Your task to perform on an android device: toggle sleep mode Image 0: 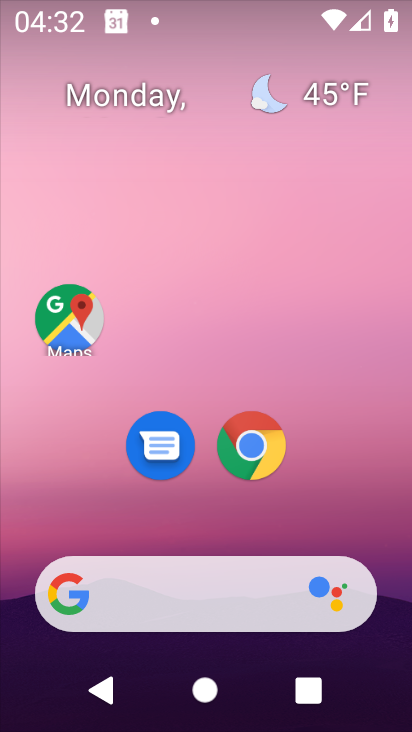
Step 0: drag from (324, 442) to (296, 17)
Your task to perform on an android device: toggle sleep mode Image 1: 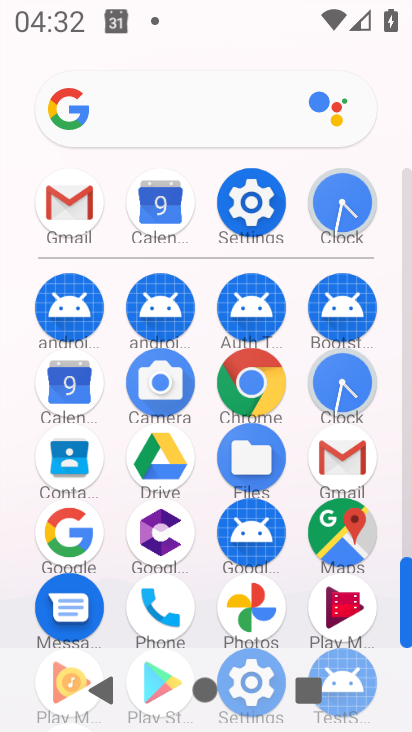
Step 1: click (267, 207)
Your task to perform on an android device: toggle sleep mode Image 2: 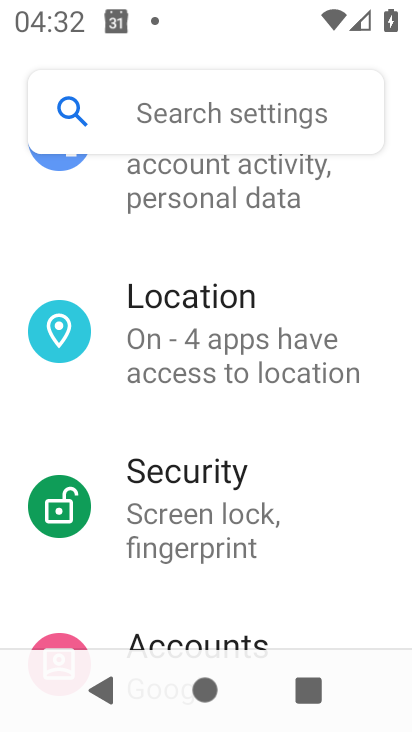
Step 2: drag from (272, 254) to (307, 593)
Your task to perform on an android device: toggle sleep mode Image 3: 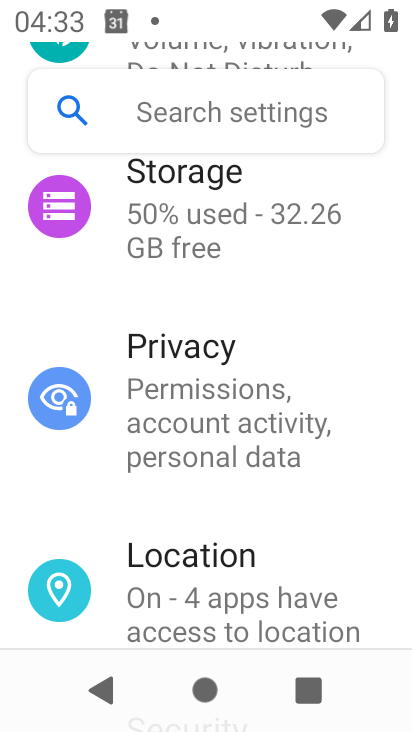
Step 3: drag from (349, 300) to (348, 584)
Your task to perform on an android device: toggle sleep mode Image 4: 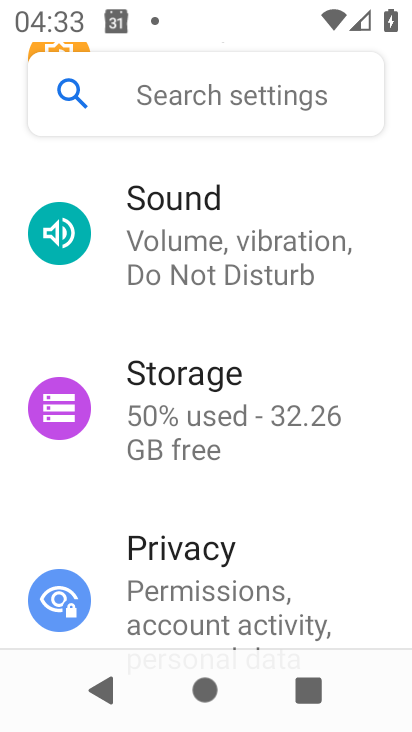
Step 4: drag from (303, 281) to (248, 630)
Your task to perform on an android device: toggle sleep mode Image 5: 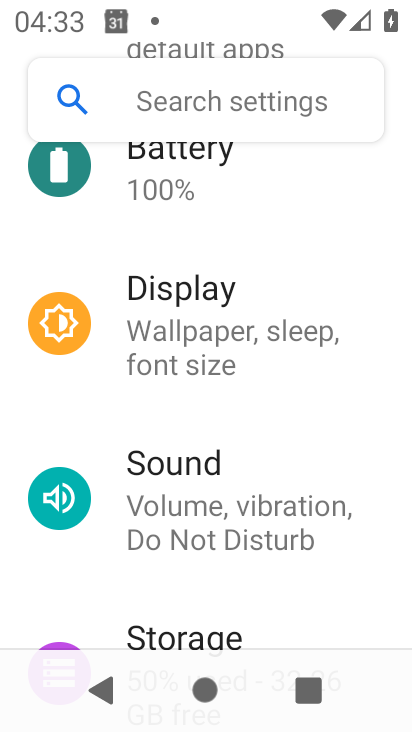
Step 5: click (245, 352)
Your task to perform on an android device: toggle sleep mode Image 6: 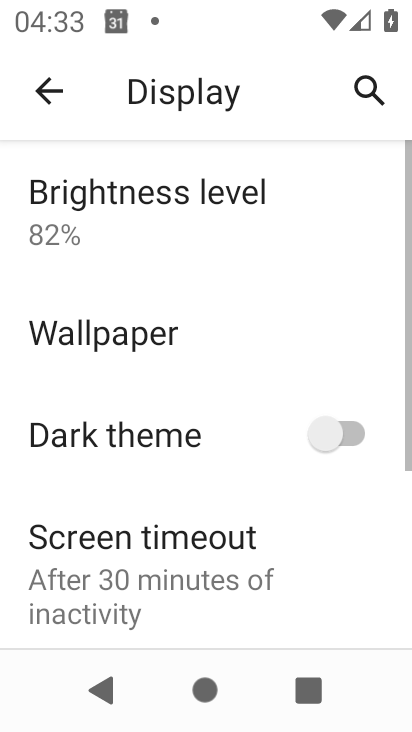
Step 6: drag from (240, 493) to (277, 186)
Your task to perform on an android device: toggle sleep mode Image 7: 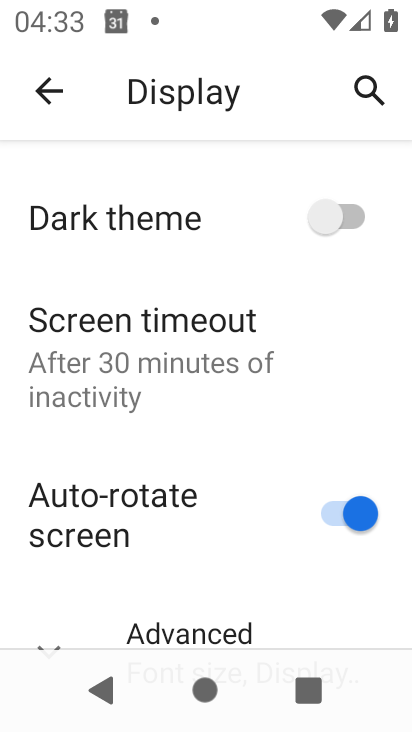
Step 7: drag from (291, 536) to (278, 153)
Your task to perform on an android device: toggle sleep mode Image 8: 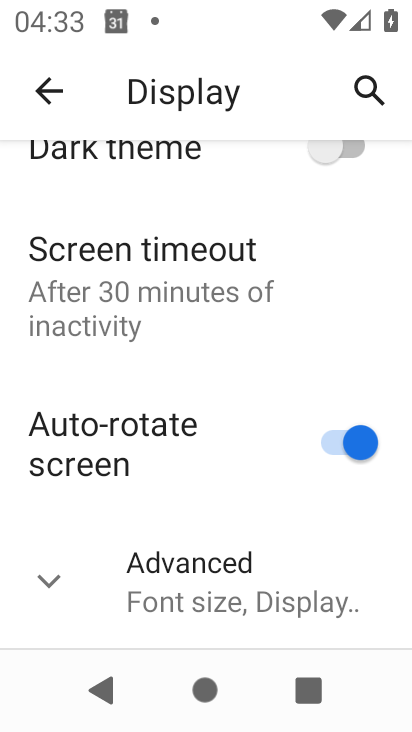
Step 8: click (215, 556)
Your task to perform on an android device: toggle sleep mode Image 9: 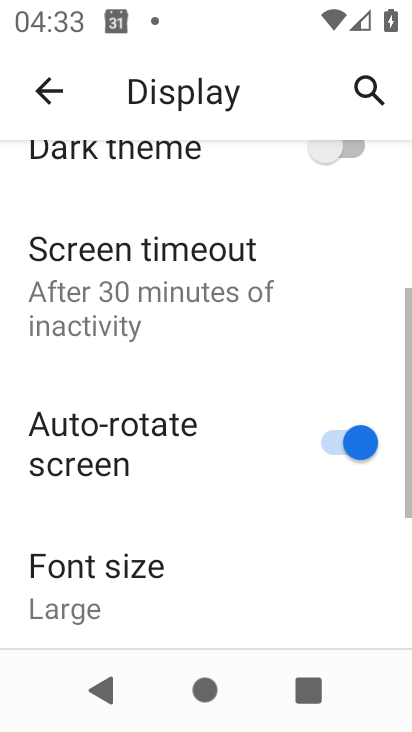
Step 9: task complete